Your task to perform on an android device: turn off priority inbox in the gmail app Image 0: 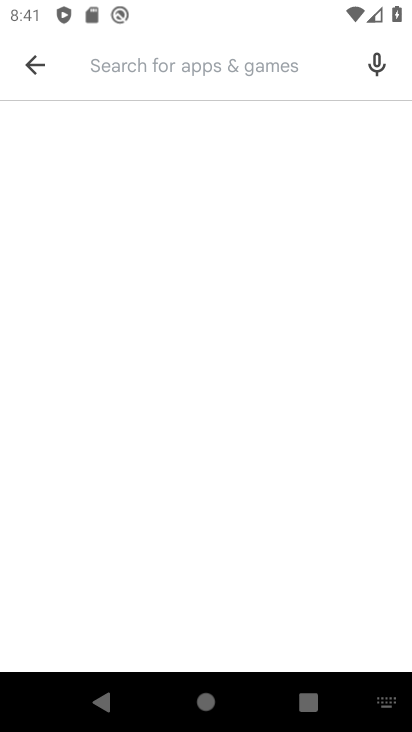
Step 0: press home button
Your task to perform on an android device: turn off priority inbox in the gmail app Image 1: 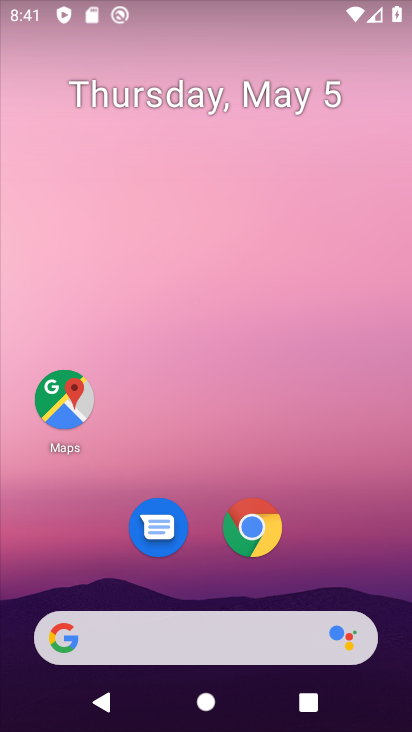
Step 1: drag from (247, 313) to (191, 118)
Your task to perform on an android device: turn off priority inbox in the gmail app Image 2: 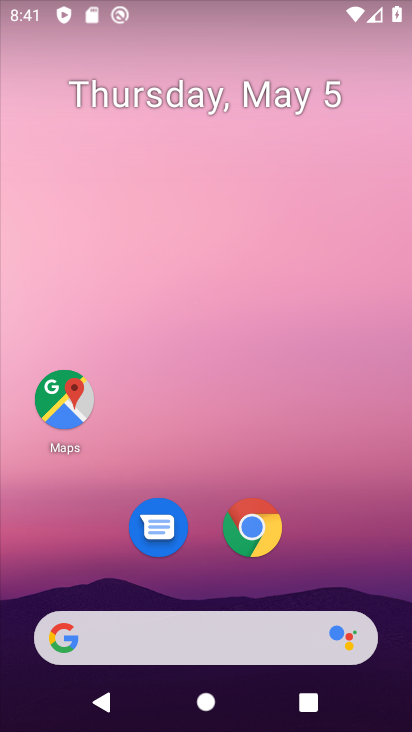
Step 2: drag from (327, 572) to (157, 123)
Your task to perform on an android device: turn off priority inbox in the gmail app Image 3: 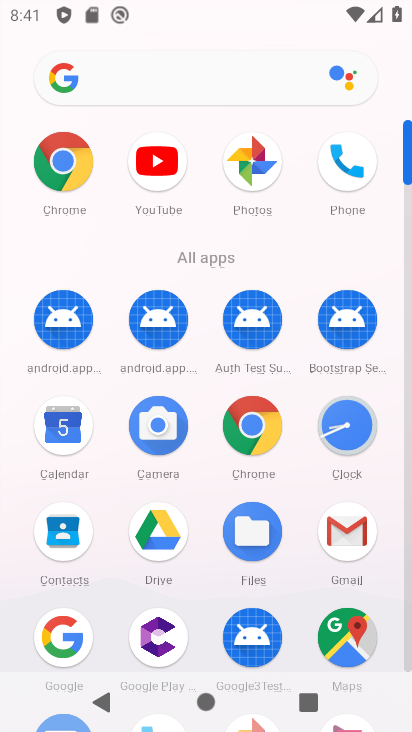
Step 3: click (348, 525)
Your task to perform on an android device: turn off priority inbox in the gmail app Image 4: 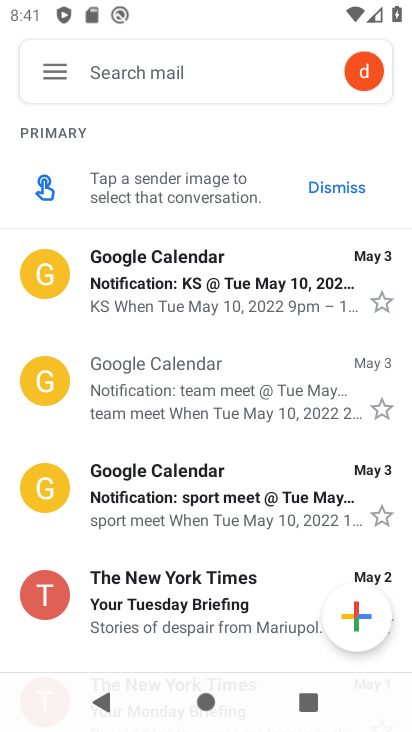
Step 4: click (45, 83)
Your task to perform on an android device: turn off priority inbox in the gmail app Image 5: 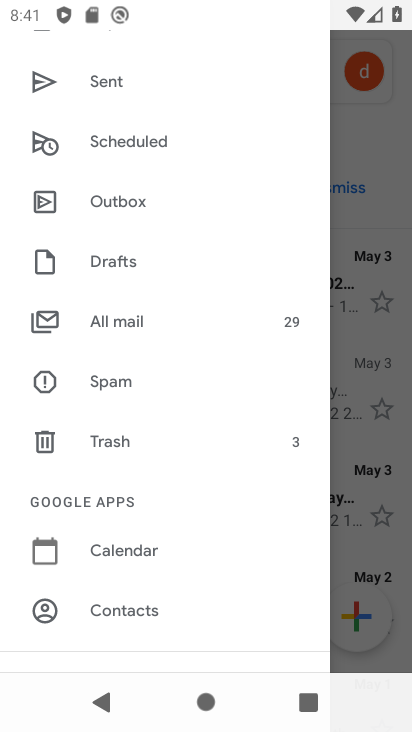
Step 5: drag from (203, 126) to (157, 157)
Your task to perform on an android device: turn off priority inbox in the gmail app Image 6: 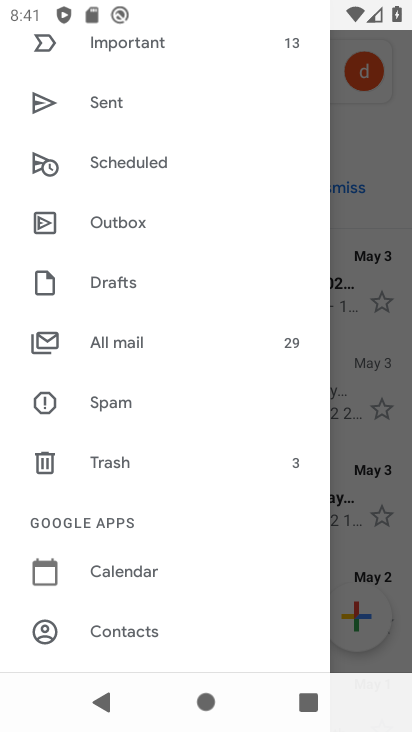
Step 6: drag from (177, 501) to (128, 57)
Your task to perform on an android device: turn off priority inbox in the gmail app Image 7: 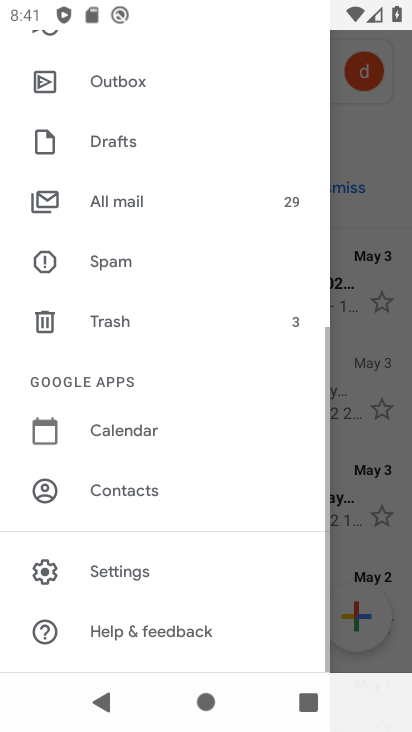
Step 7: click (121, 570)
Your task to perform on an android device: turn off priority inbox in the gmail app Image 8: 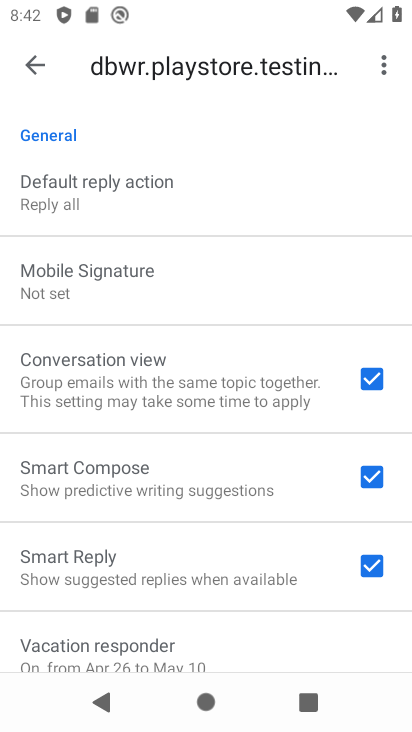
Step 8: drag from (175, 489) to (187, 574)
Your task to perform on an android device: turn off priority inbox in the gmail app Image 9: 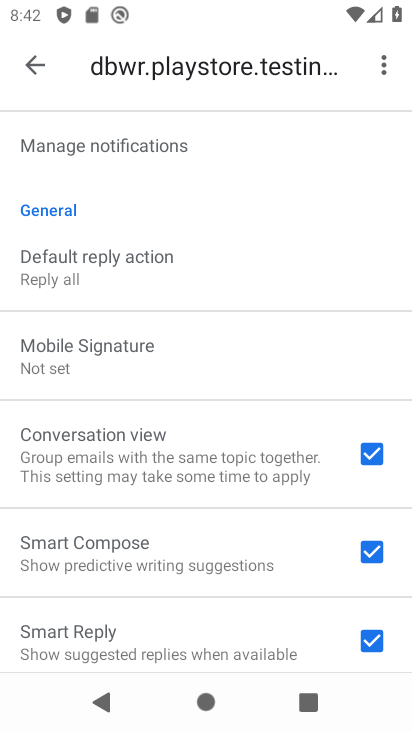
Step 9: click (149, 586)
Your task to perform on an android device: turn off priority inbox in the gmail app Image 10: 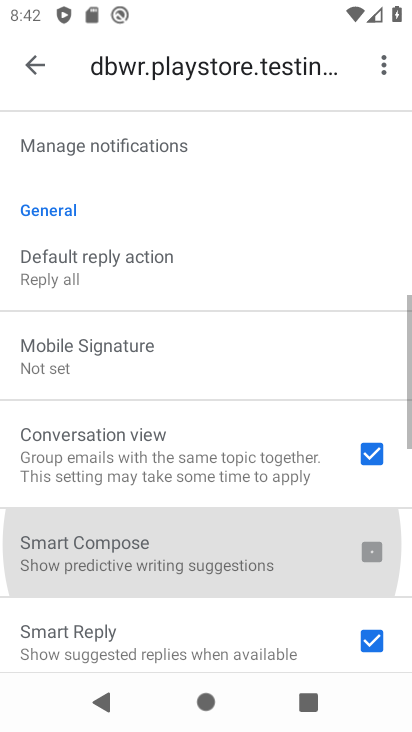
Step 10: drag from (130, 320) to (162, 609)
Your task to perform on an android device: turn off priority inbox in the gmail app Image 11: 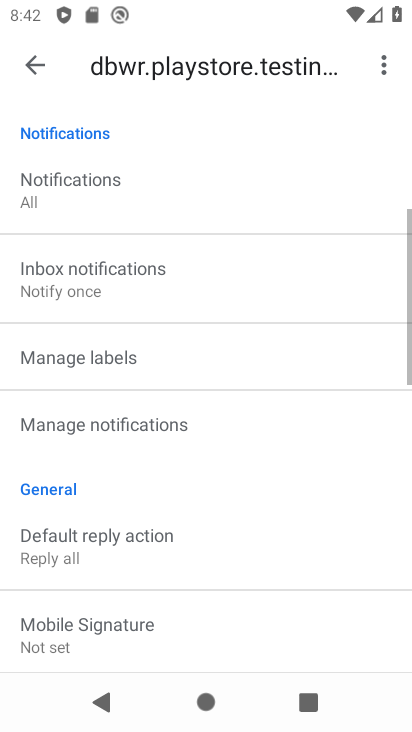
Step 11: click (310, 696)
Your task to perform on an android device: turn off priority inbox in the gmail app Image 12: 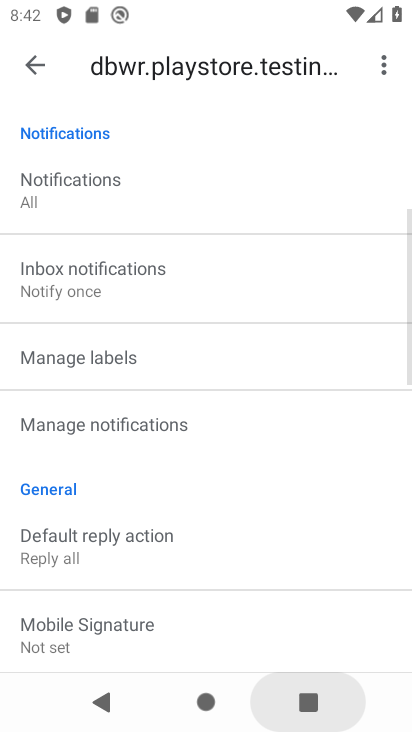
Step 12: drag from (203, 233) to (241, 531)
Your task to perform on an android device: turn off priority inbox in the gmail app Image 13: 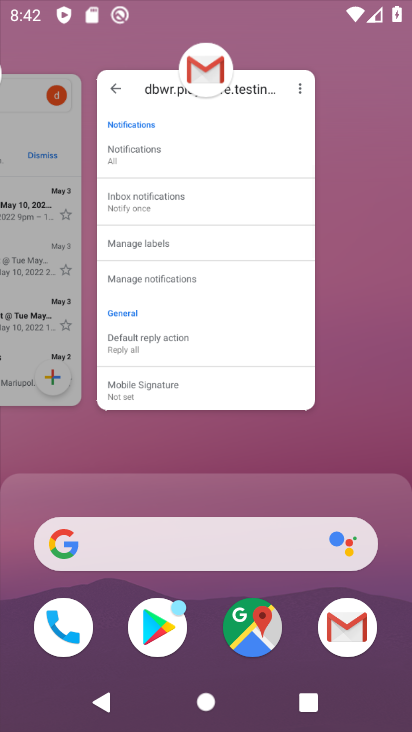
Step 13: click (165, 231)
Your task to perform on an android device: turn off priority inbox in the gmail app Image 14: 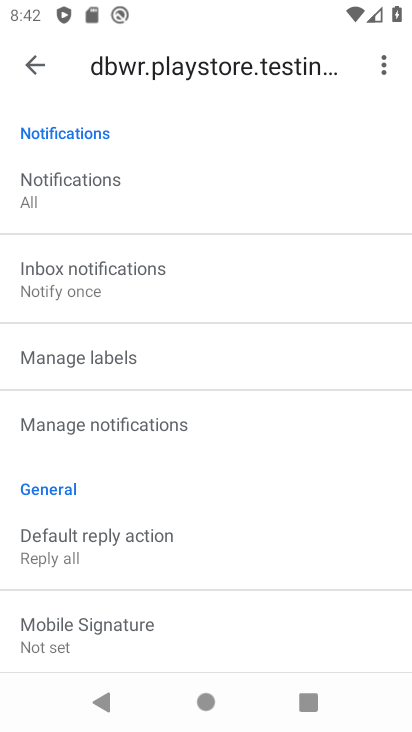
Step 14: click (71, 277)
Your task to perform on an android device: turn off priority inbox in the gmail app Image 15: 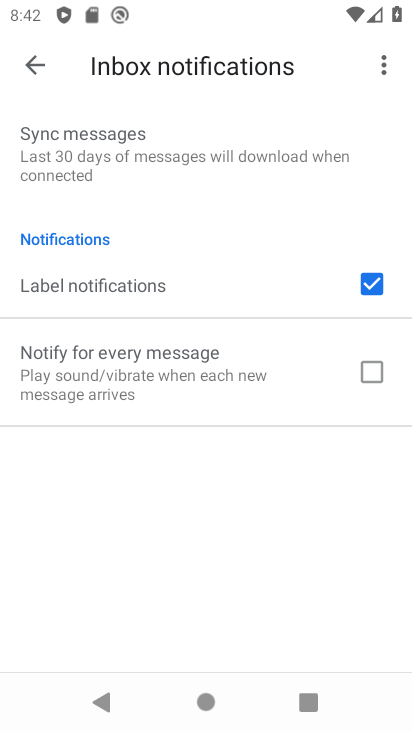
Step 15: click (28, 61)
Your task to perform on an android device: turn off priority inbox in the gmail app Image 16: 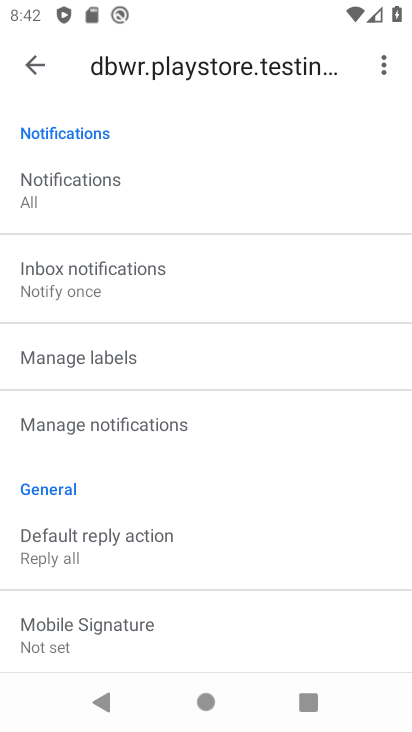
Step 16: drag from (127, 164) to (205, 560)
Your task to perform on an android device: turn off priority inbox in the gmail app Image 17: 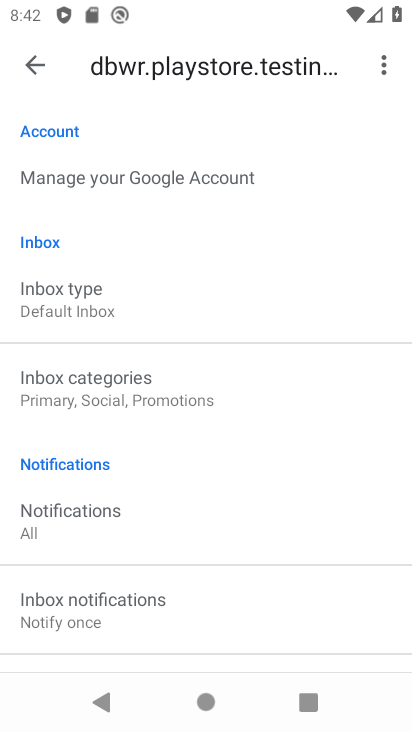
Step 17: click (52, 297)
Your task to perform on an android device: turn off priority inbox in the gmail app Image 18: 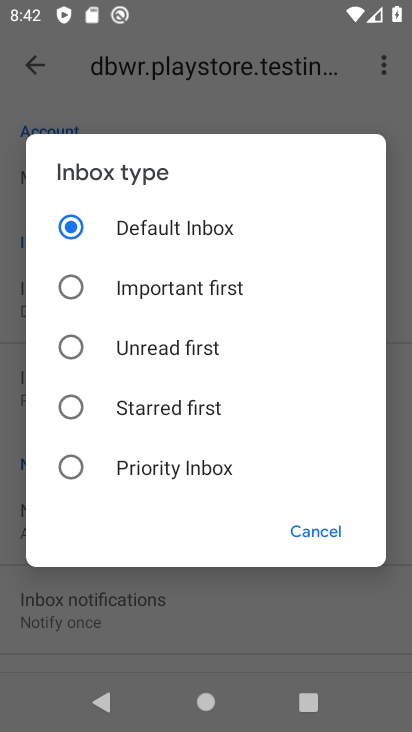
Step 18: click (66, 290)
Your task to perform on an android device: turn off priority inbox in the gmail app Image 19: 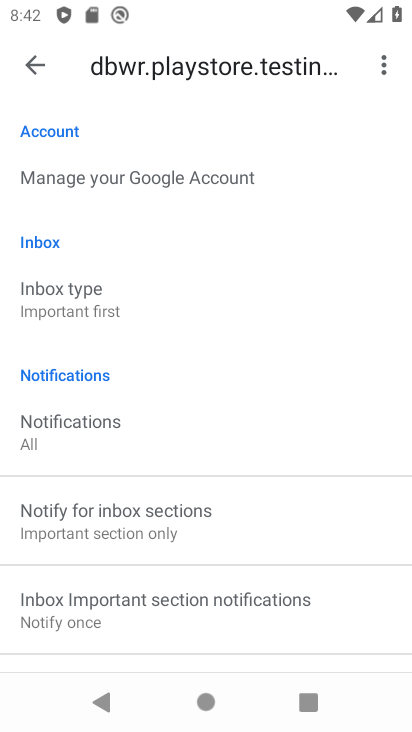
Step 19: task complete